Your task to perform on an android device: Search for Mexican restaurants on Maps Image 0: 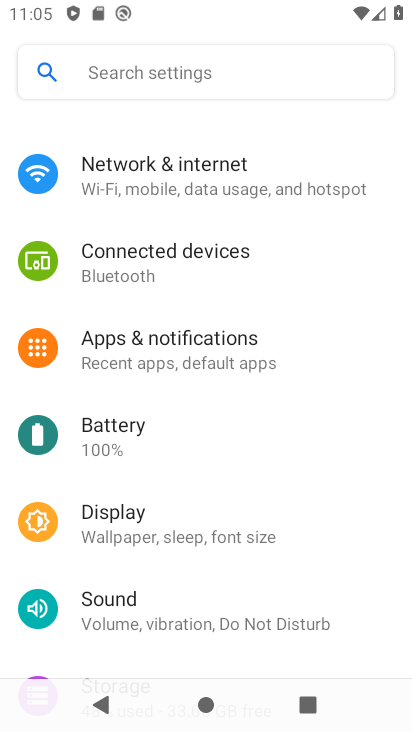
Step 0: press home button
Your task to perform on an android device: Search for Mexican restaurants on Maps Image 1: 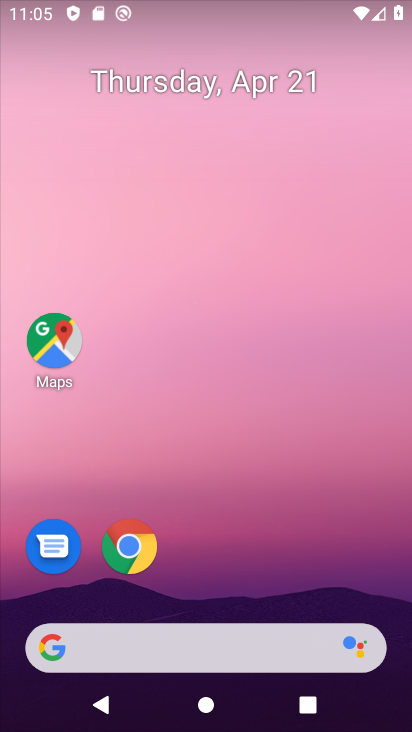
Step 1: click (51, 343)
Your task to perform on an android device: Search for Mexican restaurants on Maps Image 2: 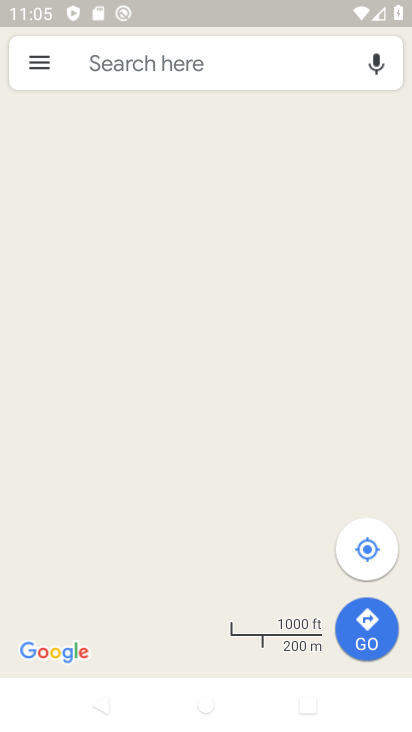
Step 2: click (175, 64)
Your task to perform on an android device: Search for Mexican restaurants on Maps Image 3: 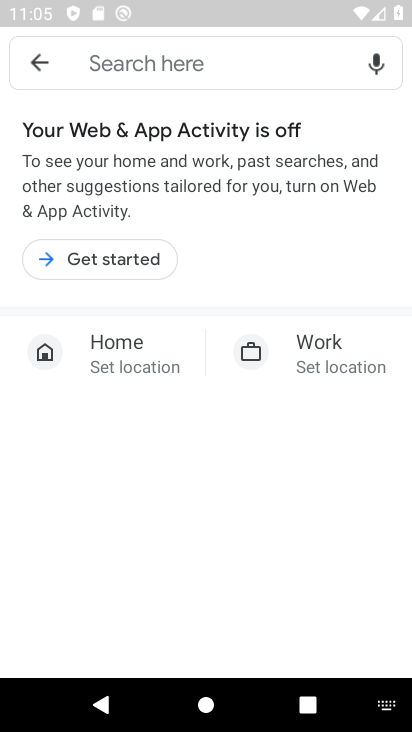
Step 3: click (133, 252)
Your task to perform on an android device: Search for Mexican restaurants on Maps Image 4: 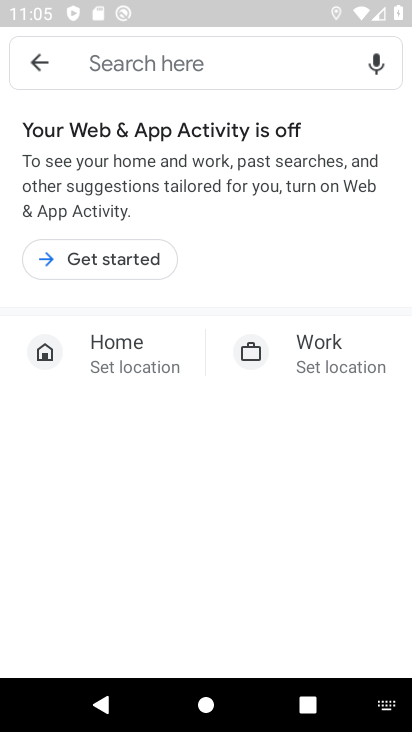
Step 4: click (85, 260)
Your task to perform on an android device: Search for Mexican restaurants on Maps Image 5: 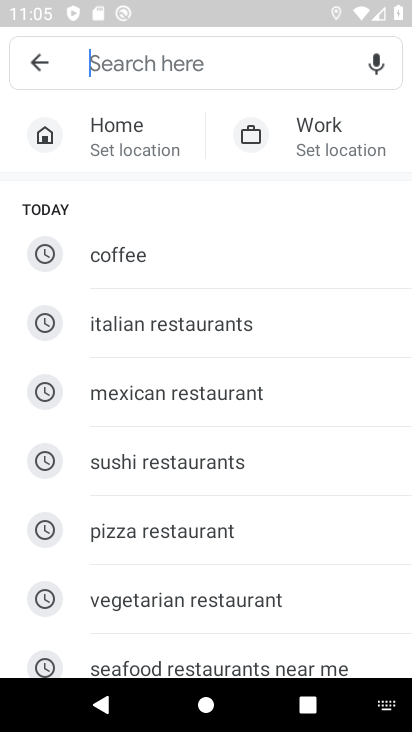
Step 5: click (171, 397)
Your task to perform on an android device: Search for Mexican restaurants on Maps Image 6: 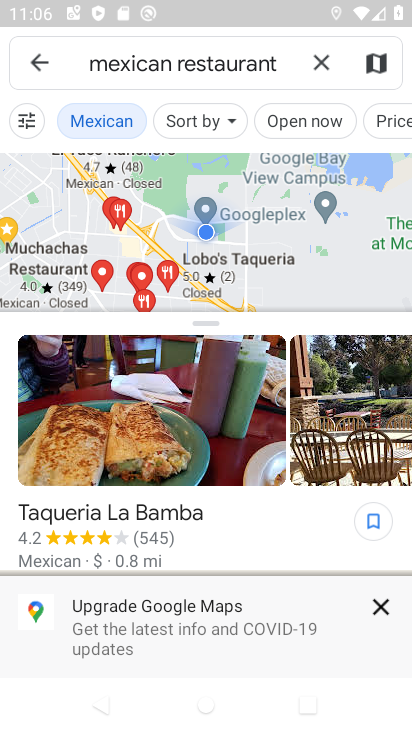
Step 6: task complete